Your task to perform on an android device: What is the recent news? Image 0: 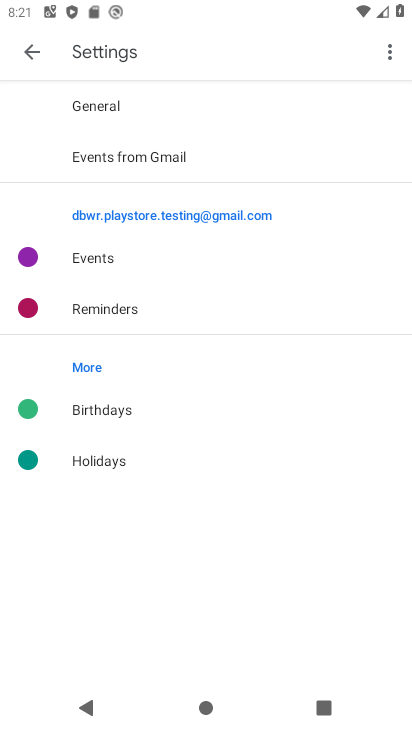
Step 0: press home button
Your task to perform on an android device: What is the recent news? Image 1: 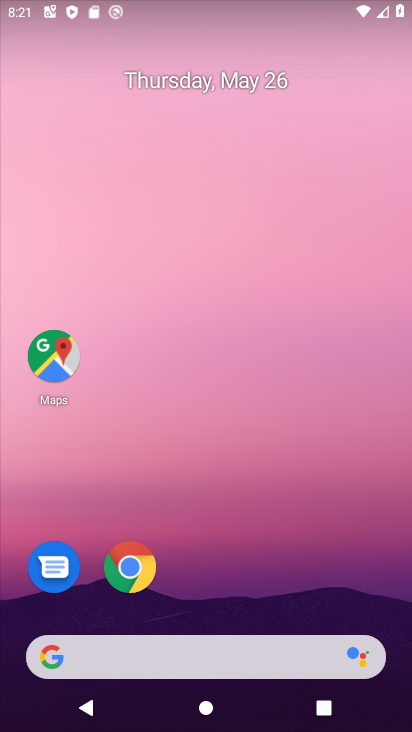
Step 1: click (59, 657)
Your task to perform on an android device: What is the recent news? Image 2: 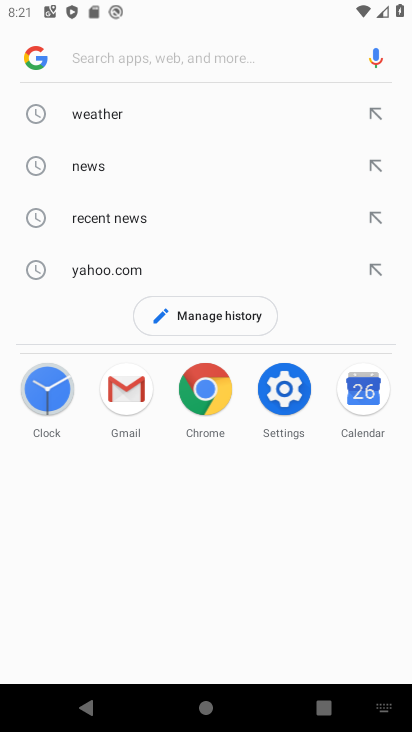
Step 2: click (140, 218)
Your task to perform on an android device: What is the recent news? Image 3: 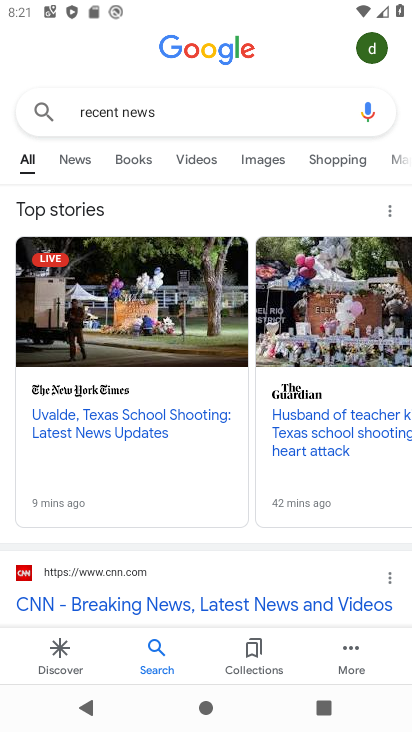
Step 3: click (79, 159)
Your task to perform on an android device: What is the recent news? Image 4: 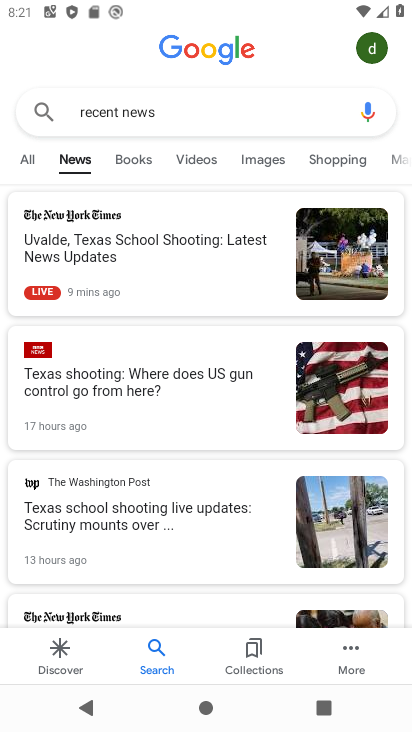
Step 4: task complete